Your task to perform on an android device: turn on bluetooth scan Image 0: 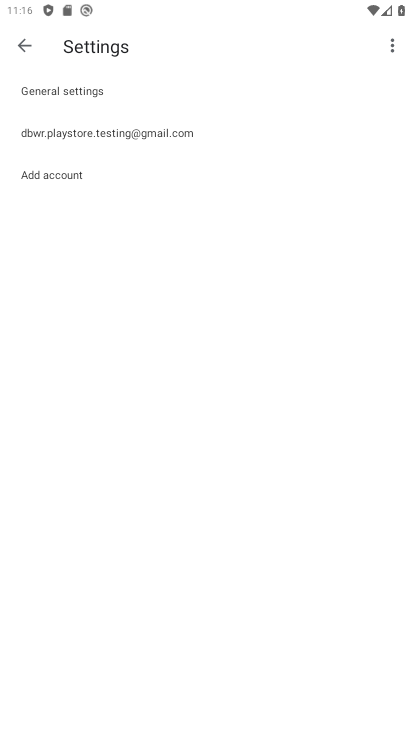
Step 0: press back button
Your task to perform on an android device: turn on bluetooth scan Image 1: 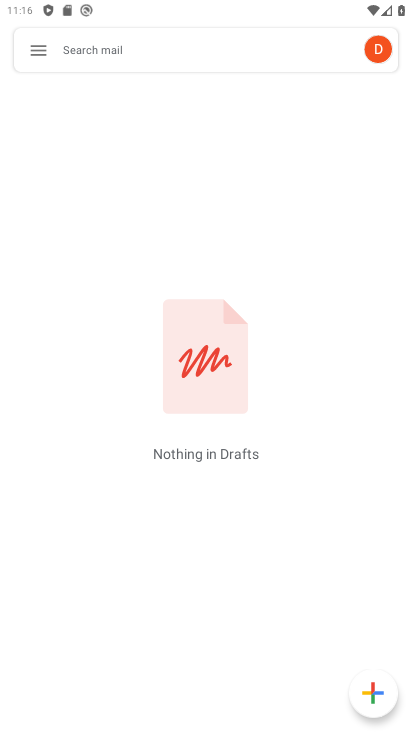
Step 1: press back button
Your task to perform on an android device: turn on bluetooth scan Image 2: 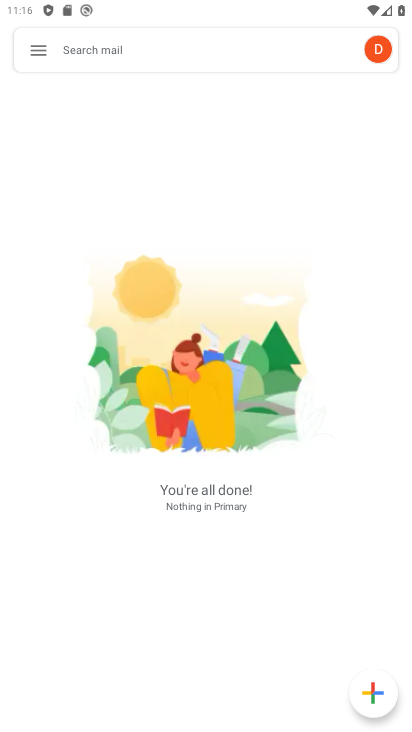
Step 2: press back button
Your task to perform on an android device: turn on bluetooth scan Image 3: 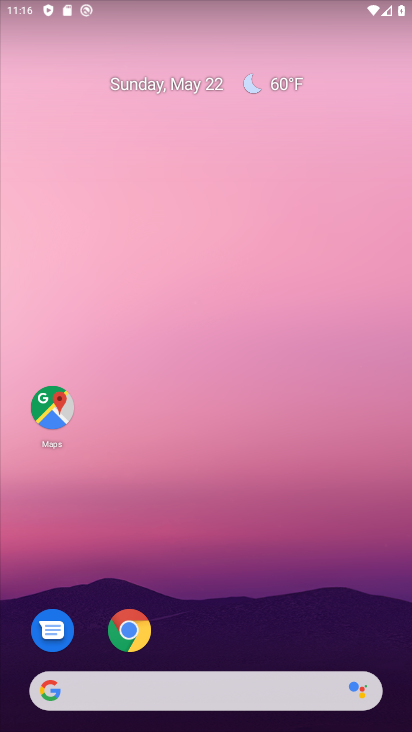
Step 3: drag from (214, 609) to (300, 153)
Your task to perform on an android device: turn on bluetooth scan Image 4: 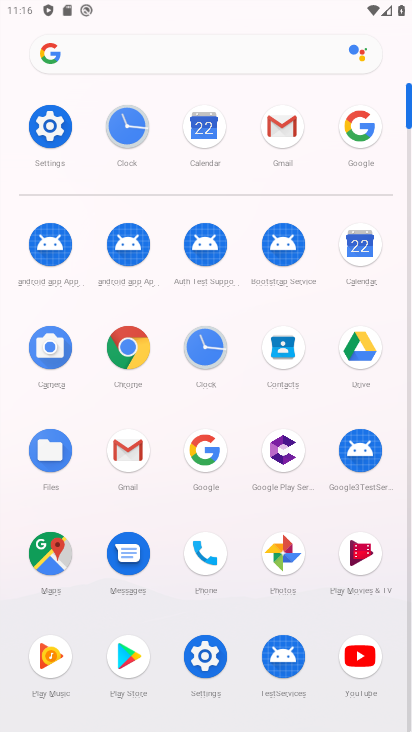
Step 4: click (50, 123)
Your task to perform on an android device: turn on bluetooth scan Image 5: 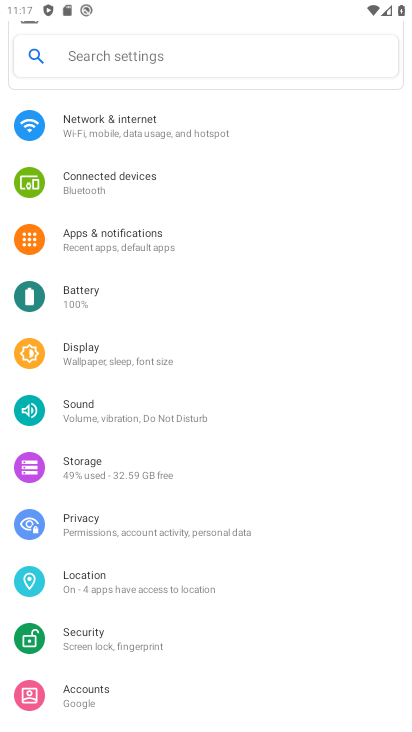
Step 5: click (117, 574)
Your task to perform on an android device: turn on bluetooth scan Image 6: 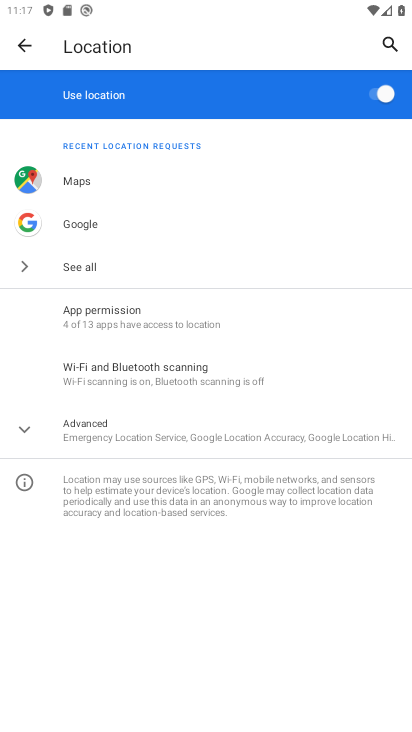
Step 6: click (153, 369)
Your task to perform on an android device: turn on bluetooth scan Image 7: 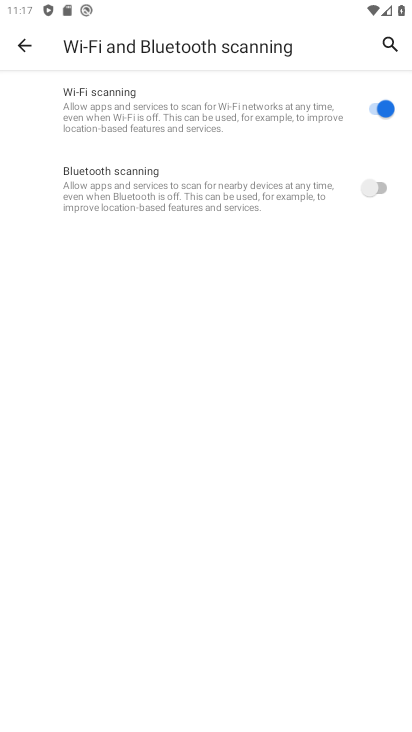
Step 7: click (365, 189)
Your task to perform on an android device: turn on bluetooth scan Image 8: 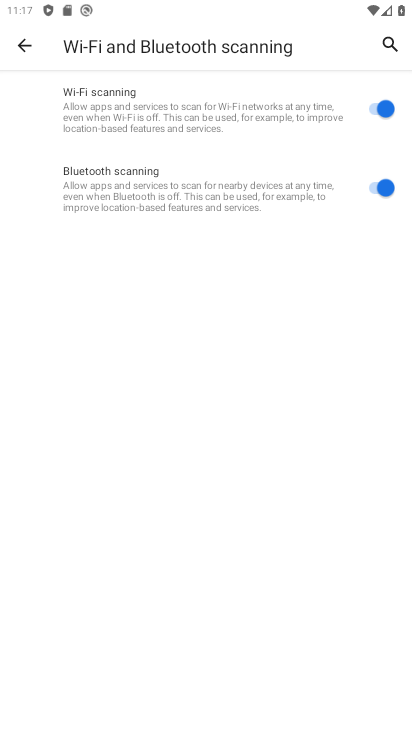
Step 8: task complete